Your task to perform on an android device: turn on data saver in the chrome app Image 0: 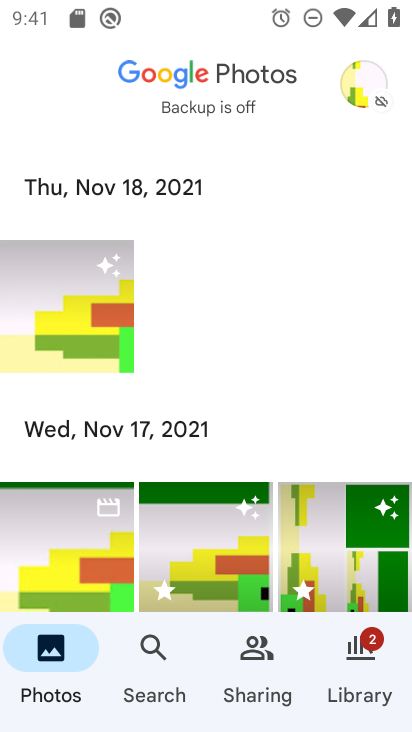
Step 0: press home button
Your task to perform on an android device: turn on data saver in the chrome app Image 1: 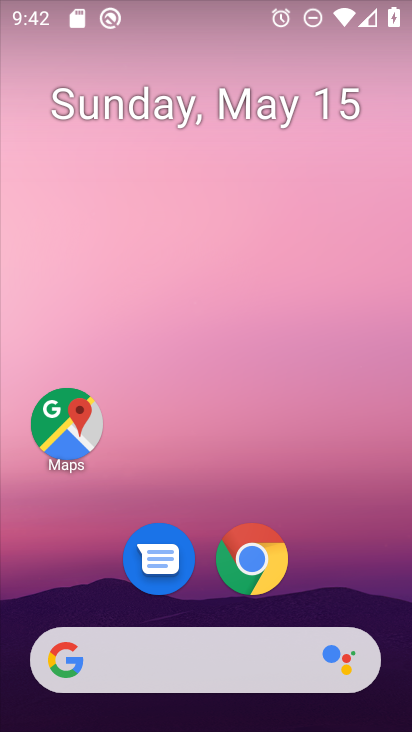
Step 1: click (263, 574)
Your task to perform on an android device: turn on data saver in the chrome app Image 2: 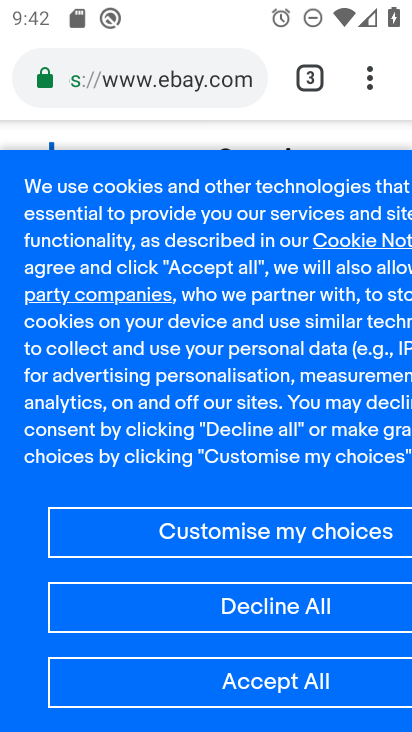
Step 2: click (365, 89)
Your task to perform on an android device: turn on data saver in the chrome app Image 3: 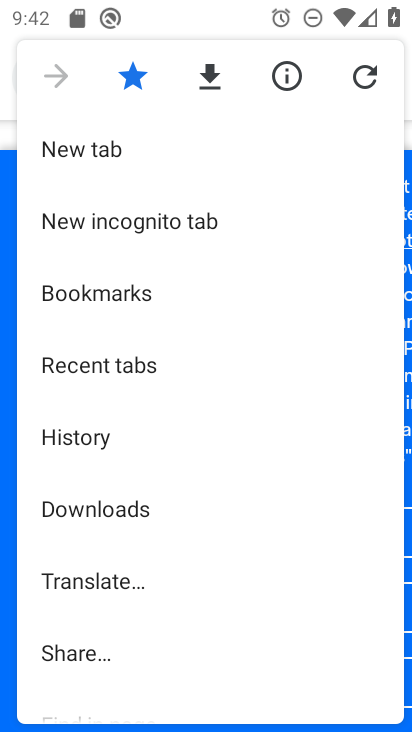
Step 3: drag from (180, 643) to (197, 220)
Your task to perform on an android device: turn on data saver in the chrome app Image 4: 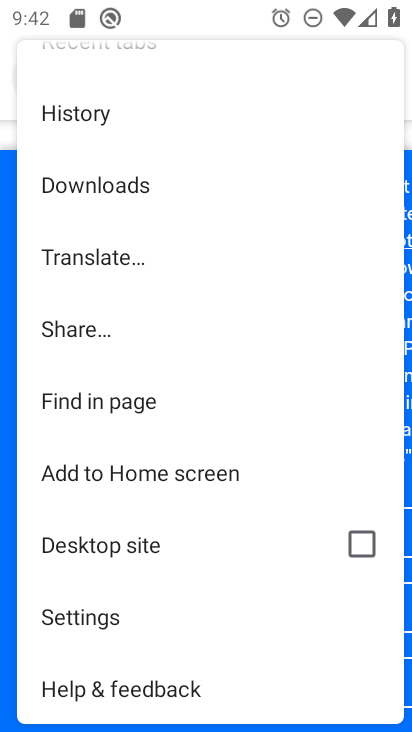
Step 4: click (167, 625)
Your task to perform on an android device: turn on data saver in the chrome app Image 5: 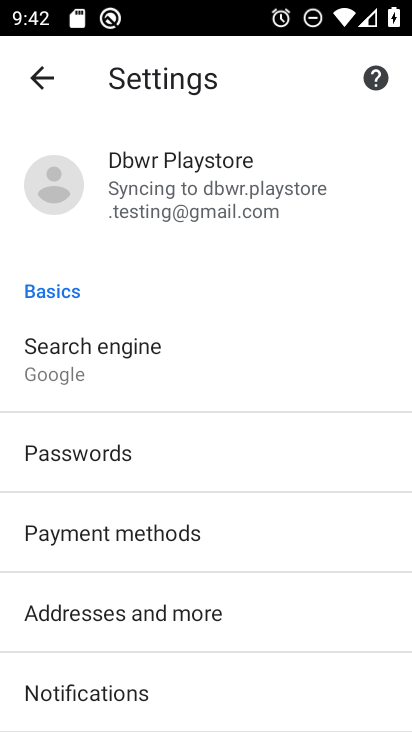
Step 5: drag from (106, 684) to (189, 307)
Your task to perform on an android device: turn on data saver in the chrome app Image 6: 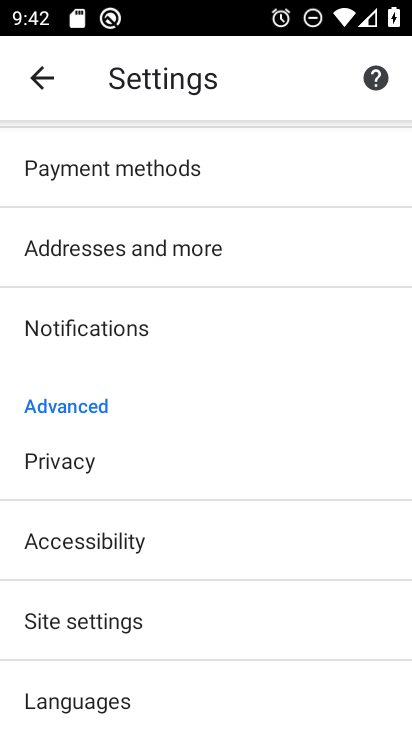
Step 6: drag from (131, 681) to (141, 531)
Your task to perform on an android device: turn on data saver in the chrome app Image 7: 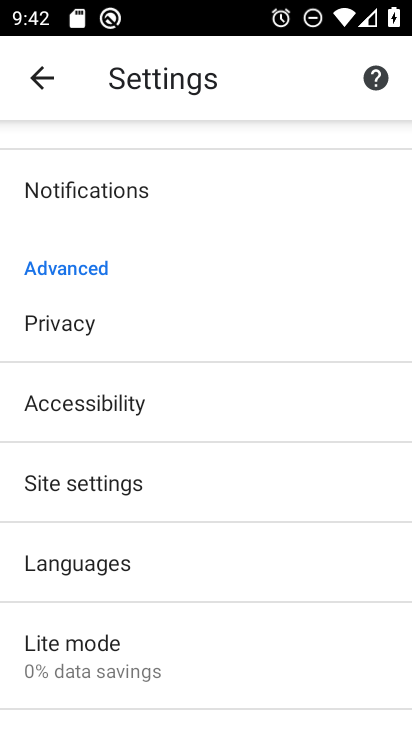
Step 7: click (115, 673)
Your task to perform on an android device: turn on data saver in the chrome app Image 8: 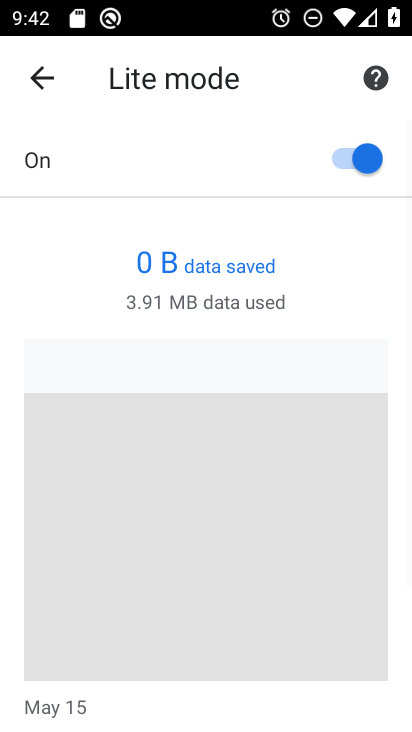
Step 8: click (325, 166)
Your task to perform on an android device: turn on data saver in the chrome app Image 9: 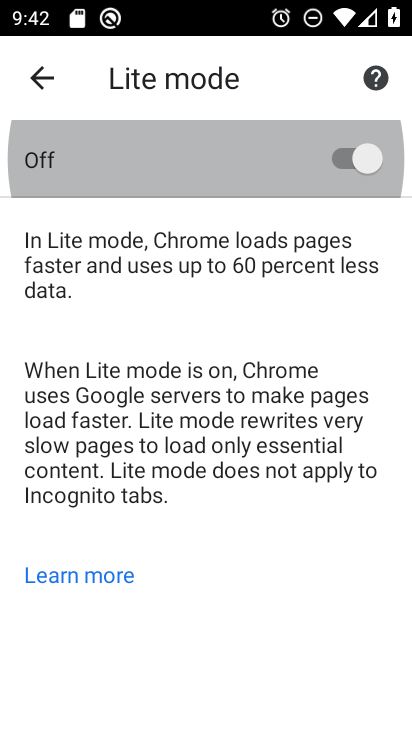
Step 9: click (325, 166)
Your task to perform on an android device: turn on data saver in the chrome app Image 10: 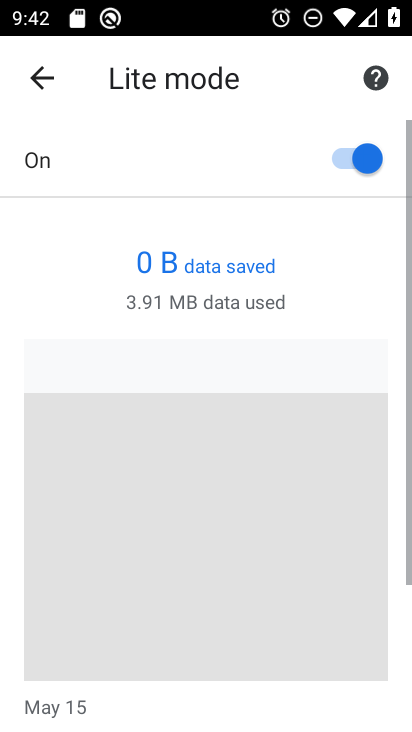
Step 10: task complete